Your task to perform on an android device: turn on javascript in the chrome app Image 0: 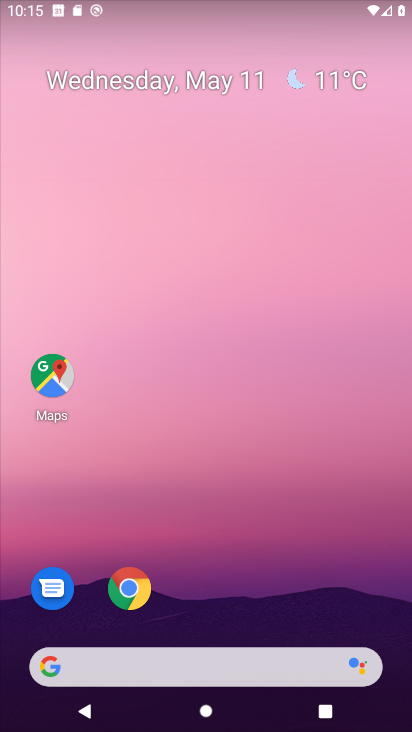
Step 0: click (132, 599)
Your task to perform on an android device: turn on javascript in the chrome app Image 1: 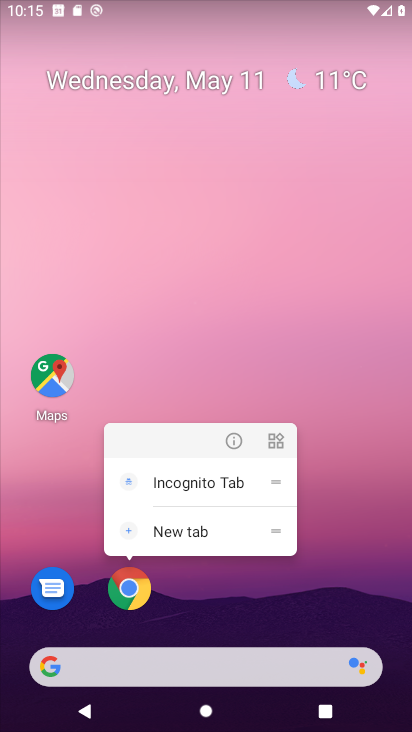
Step 1: click (141, 597)
Your task to perform on an android device: turn on javascript in the chrome app Image 2: 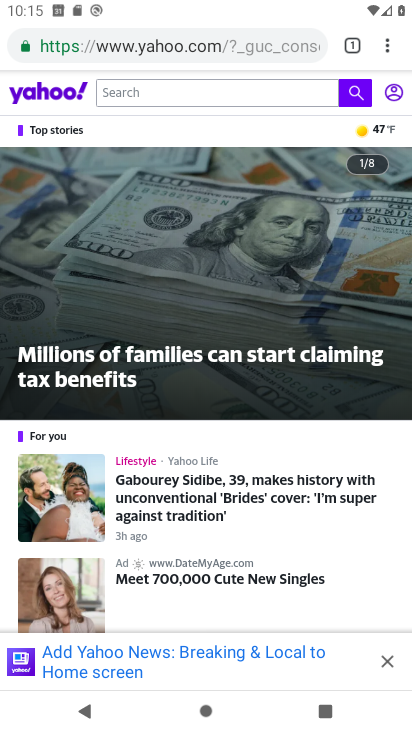
Step 2: drag from (380, 43) to (273, 557)
Your task to perform on an android device: turn on javascript in the chrome app Image 3: 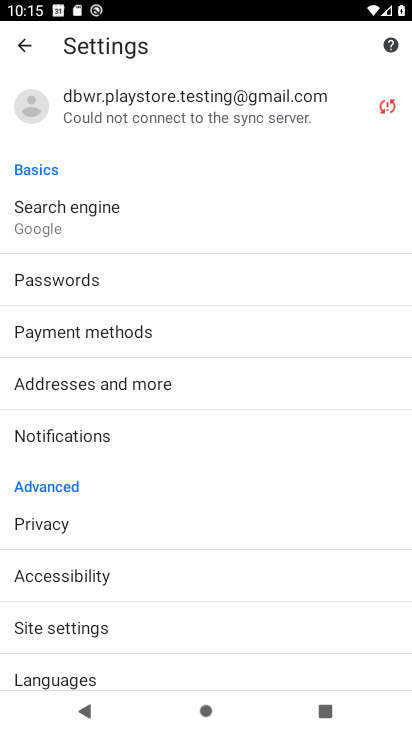
Step 3: click (132, 626)
Your task to perform on an android device: turn on javascript in the chrome app Image 4: 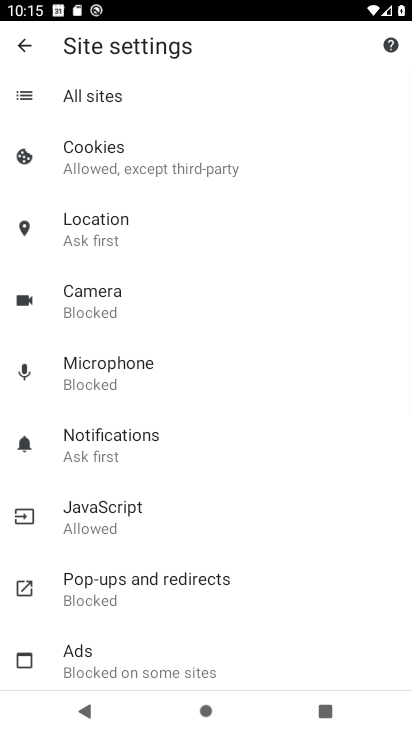
Step 4: click (141, 518)
Your task to perform on an android device: turn on javascript in the chrome app Image 5: 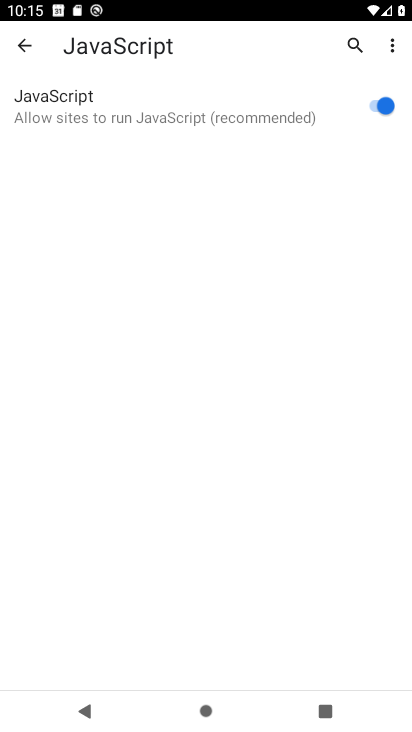
Step 5: task complete